Your task to perform on an android device: turn on notifications settings in the gmail app Image 0: 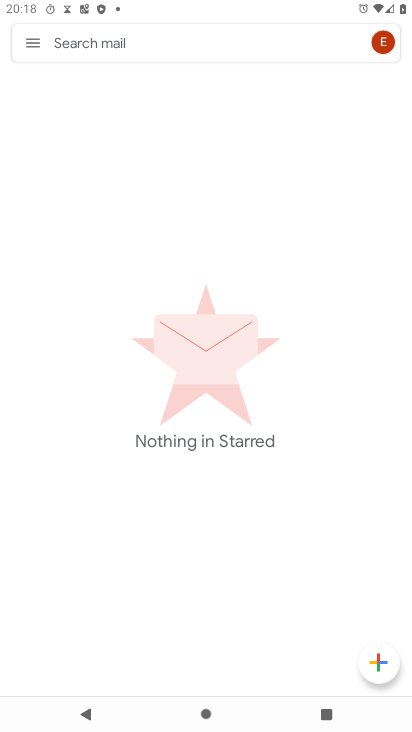
Step 0: click (33, 51)
Your task to perform on an android device: turn on notifications settings in the gmail app Image 1: 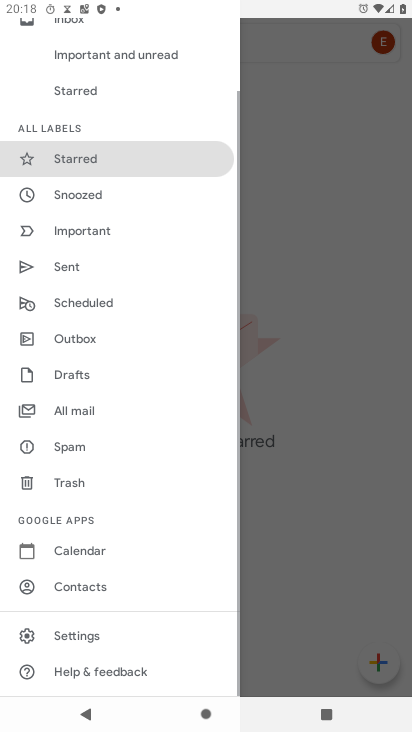
Step 1: click (80, 625)
Your task to perform on an android device: turn on notifications settings in the gmail app Image 2: 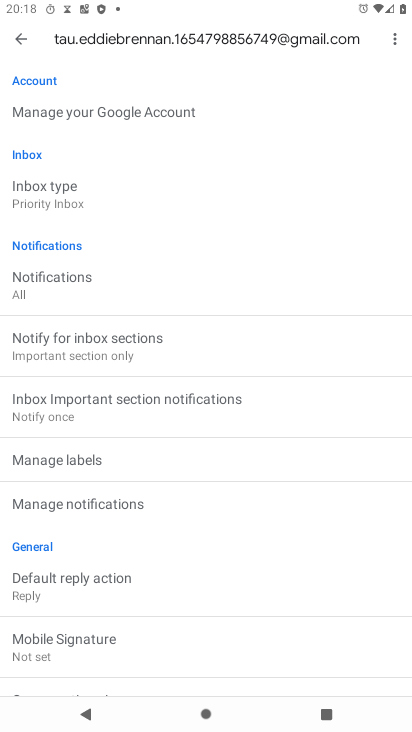
Step 2: click (75, 277)
Your task to perform on an android device: turn on notifications settings in the gmail app Image 3: 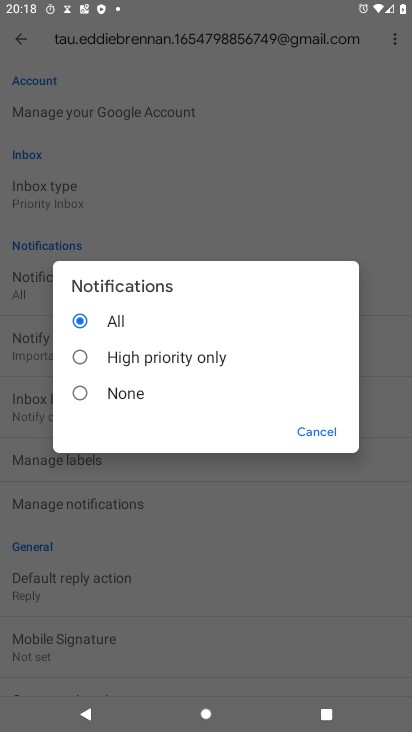
Step 3: click (108, 330)
Your task to perform on an android device: turn on notifications settings in the gmail app Image 4: 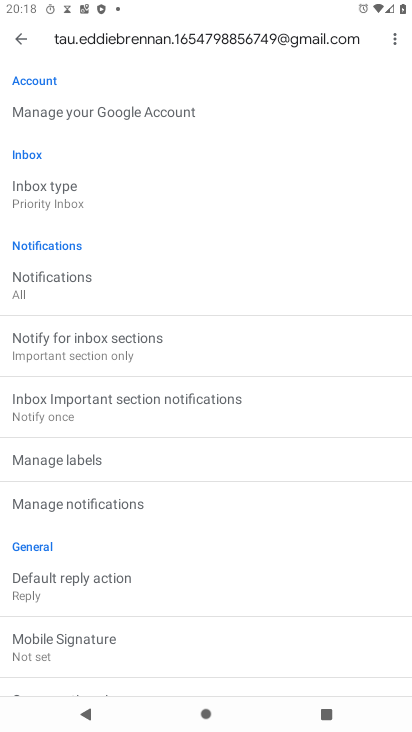
Step 4: click (27, 66)
Your task to perform on an android device: turn on notifications settings in the gmail app Image 5: 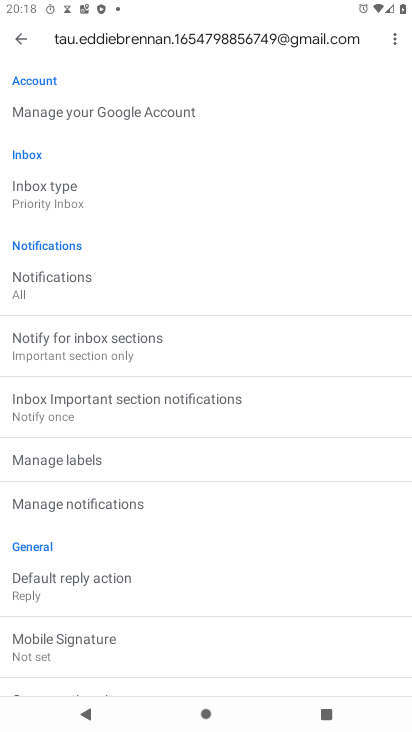
Step 5: click (16, 40)
Your task to perform on an android device: turn on notifications settings in the gmail app Image 6: 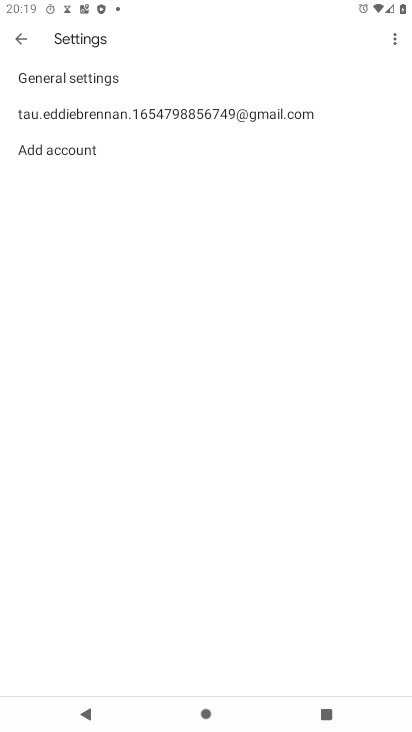
Step 6: click (56, 73)
Your task to perform on an android device: turn on notifications settings in the gmail app Image 7: 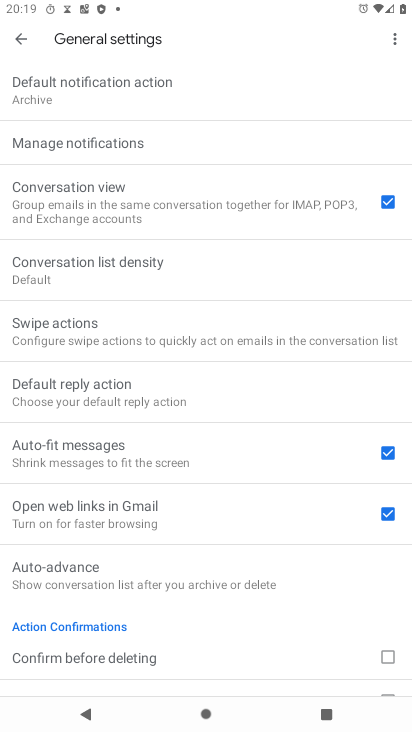
Step 7: click (67, 131)
Your task to perform on an android device: turn on notifications settings in the gmail app Image 8: 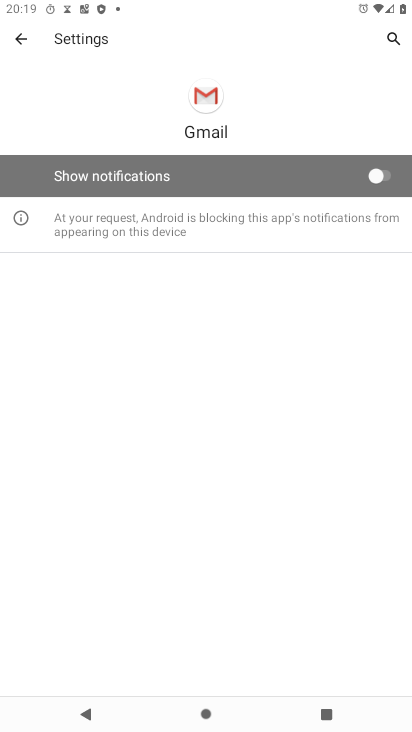
Step 8: click (398, 173)
Your task to perform on an android device: turn on notifications settings in the gmail app Image 9: 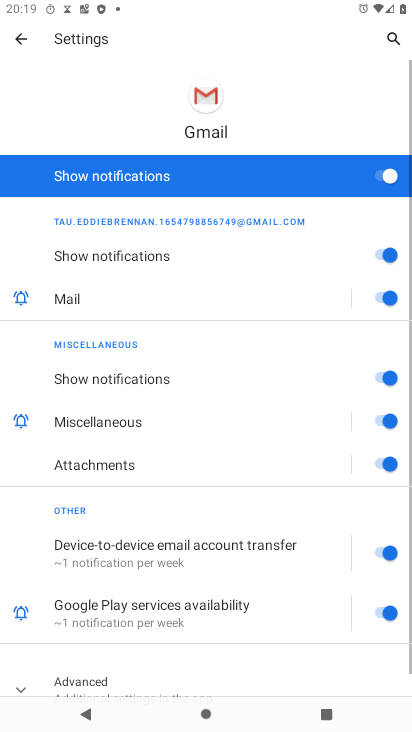
Step 9: task complete